Your task to perform on an android device: Open maps Image 0: 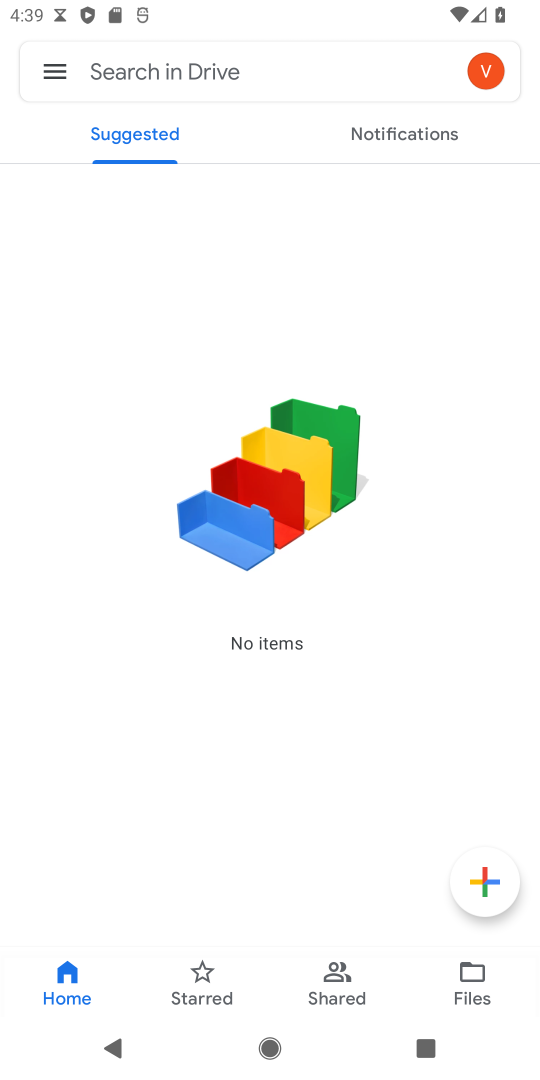
Step 0: press back button
Your task to perform on an android device: Open maps Image 1: 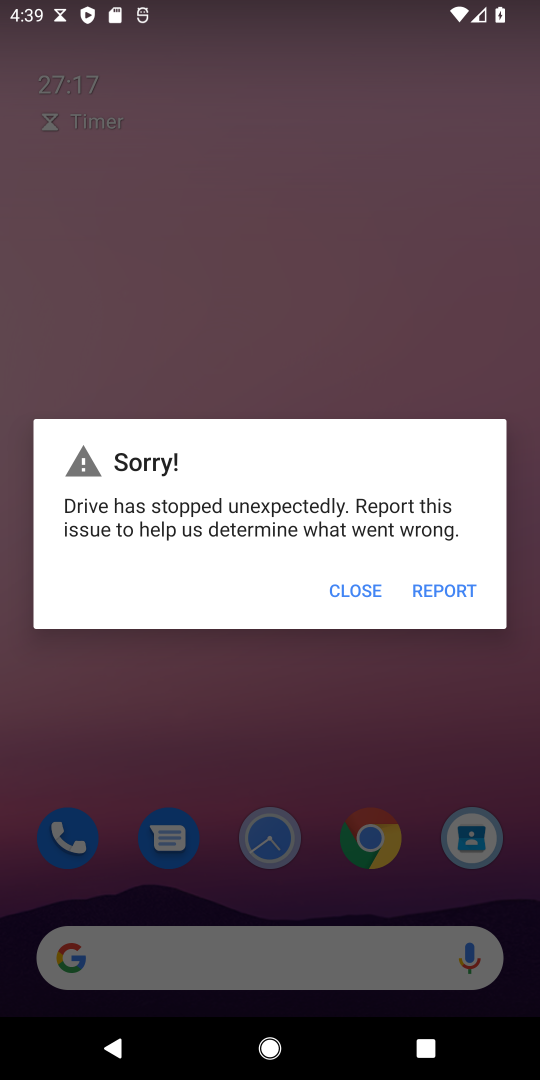
Step 1: click (363, 610)
Your task to perform on an android device: Open maps Image 2: 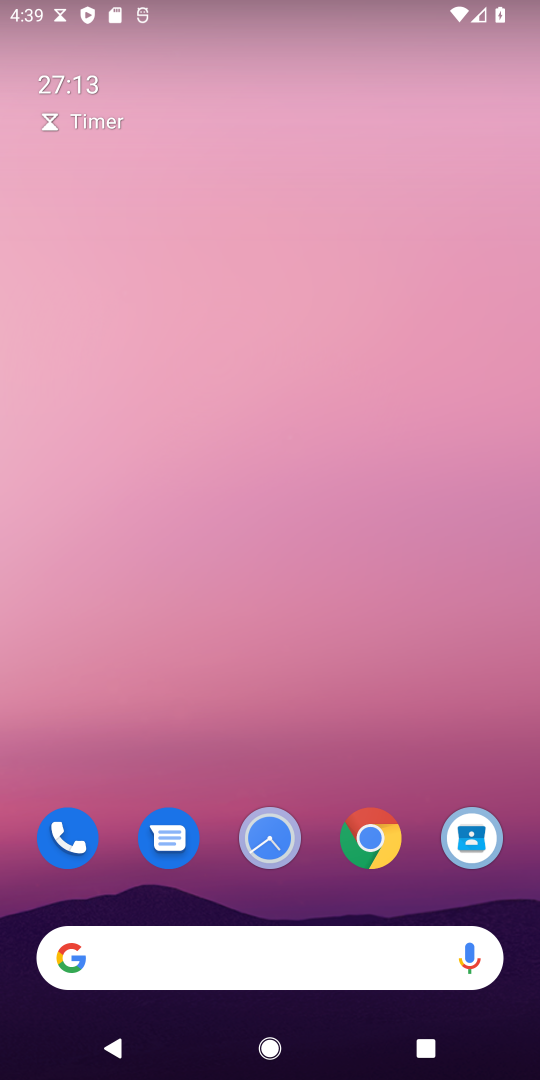
Step 2: drag from (319, 849) to (281, 191)
Your task to perform on an android device: Open maps Image 3: 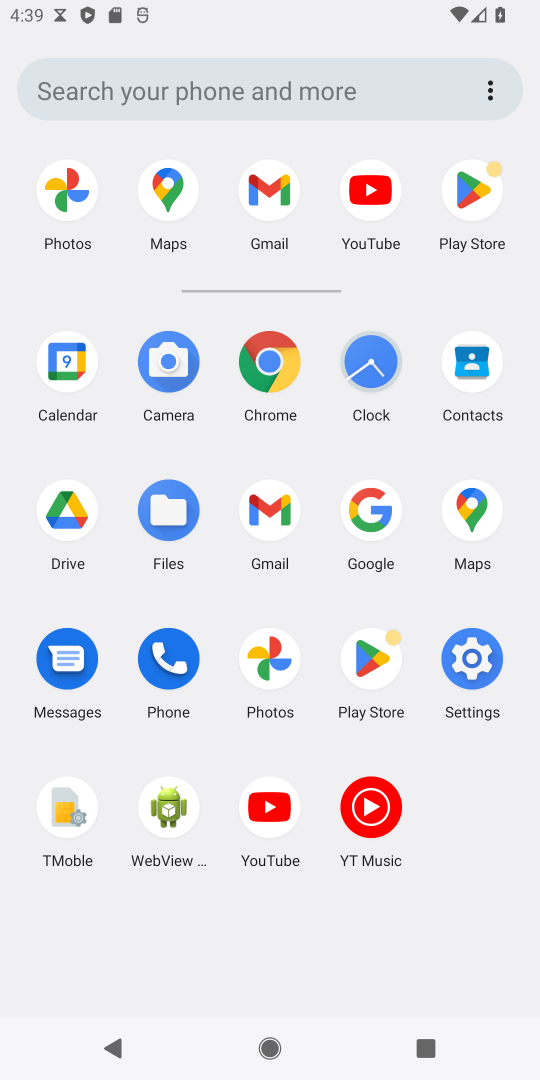
Step 3: click (155, 212)
Your task to perform on an android device: Open maps Image 4: 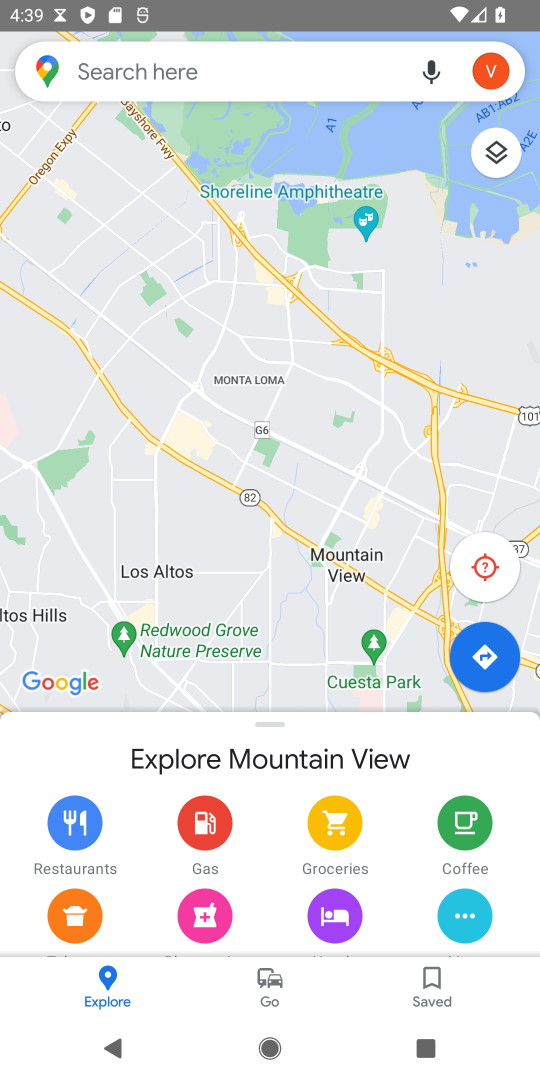
Step 4: task complete